Your task to perform on an android device: Go to Wikipedia Image 0: 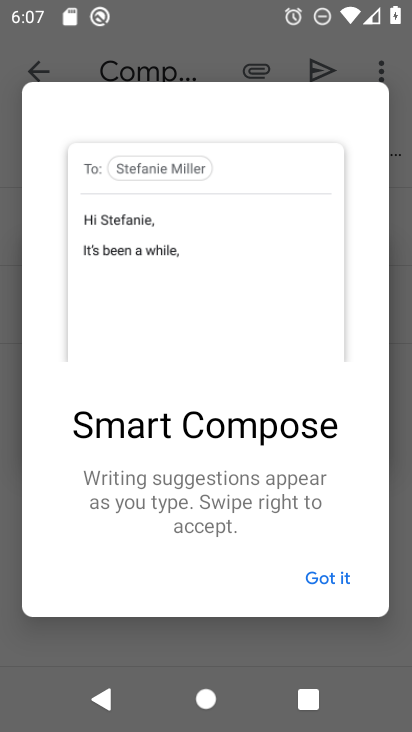
Step 0: press home button
Your task to perform on an android device: Go to Wikipedia Image 1: 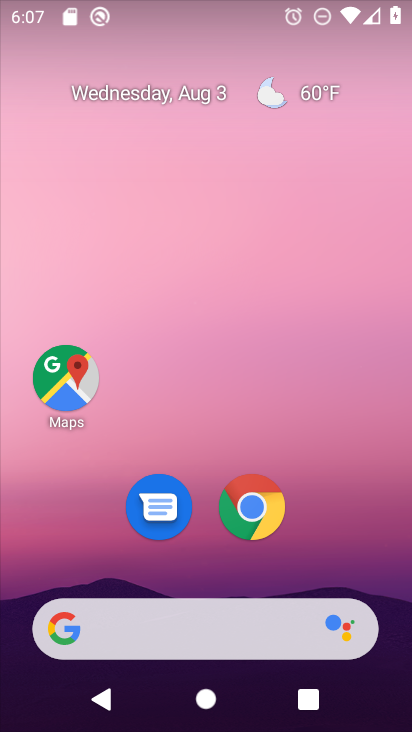
Step 1: drag from (313, 409) to (287, 30)
Your task to perform on an android device: Go to Wikipedia Image 2: 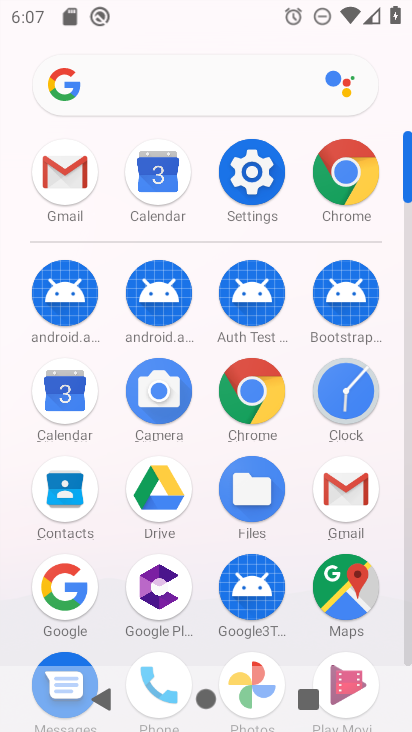
Step 2: click (252, 398)
Your task to perform on an android device: Go to Wikipedia Image 3: 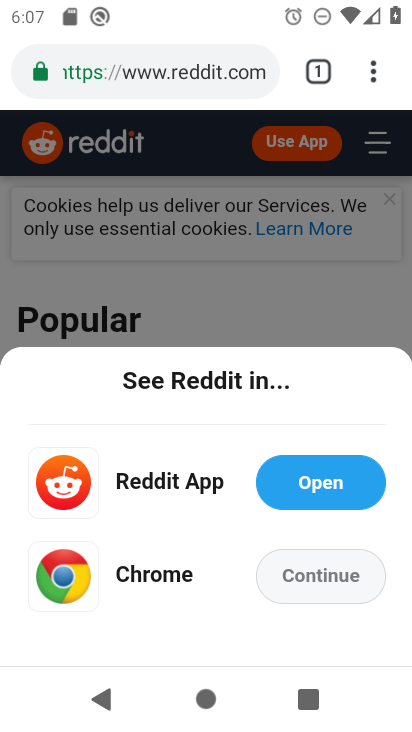
Step 3: click (207, 73)
Your task to perform on an android device: Go to Wikipedia Image 4: 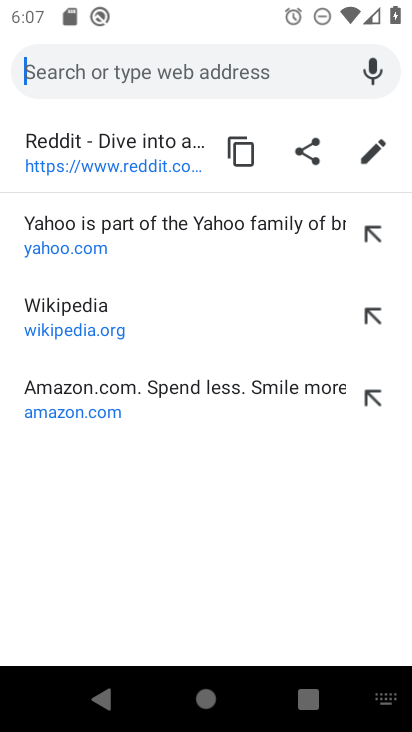
Step 4: click (69, 334)
Your task to perform on an android device: Go to Wikipedia Image 5: 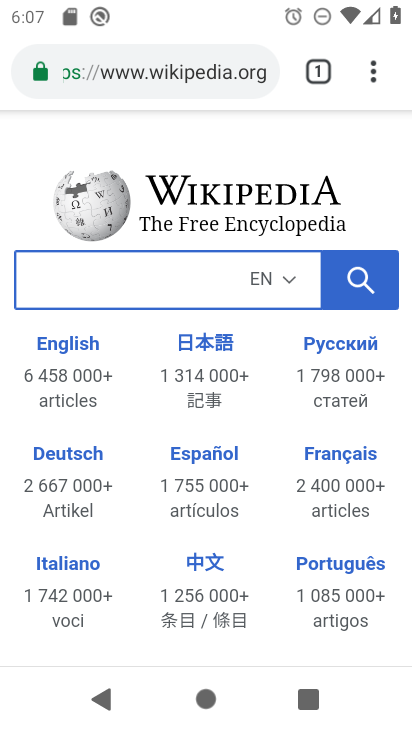
Step 5: task complete